Your task to perform on an android device: Show me productivity apps on the Play Store Image 0: 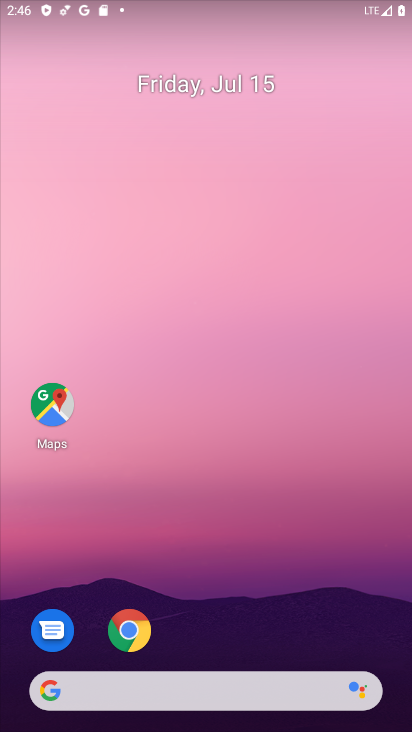
Step 0: drag from (187, 649) to (180, 266)
Your task to perform on an android device: Show me productivity apps on the Play Store Image 1: 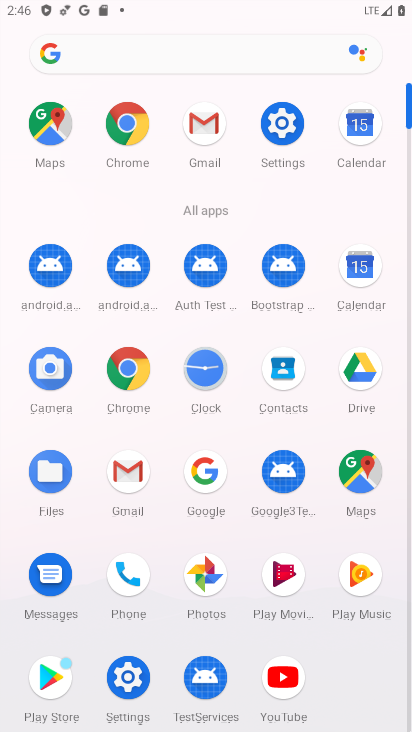
Step 1: click (37, 682)
Your task to perform on an android device: Show me productivity apps on the Play Store Image 2: 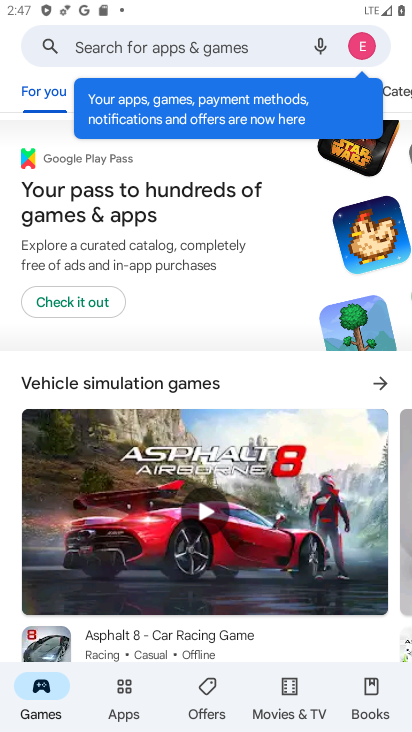
Step 2: click (134, 684)
Your task to perform on an android device: Show me productivity apps on the Play Store Image 3: 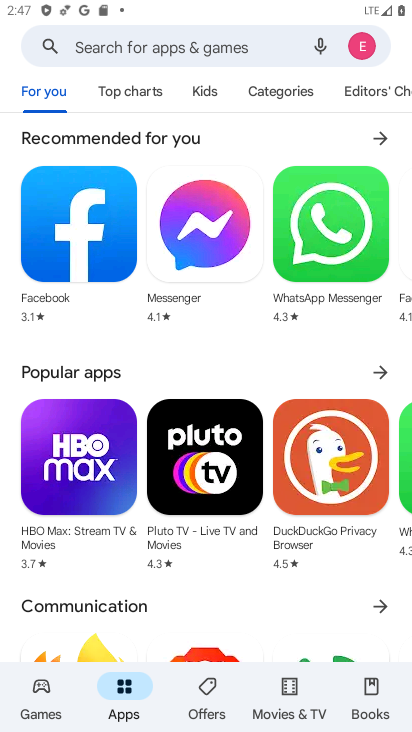
Step 3: click (269, 89)
Your task to perform on an android device: Show me productivity apps on the Play Store Image 4: 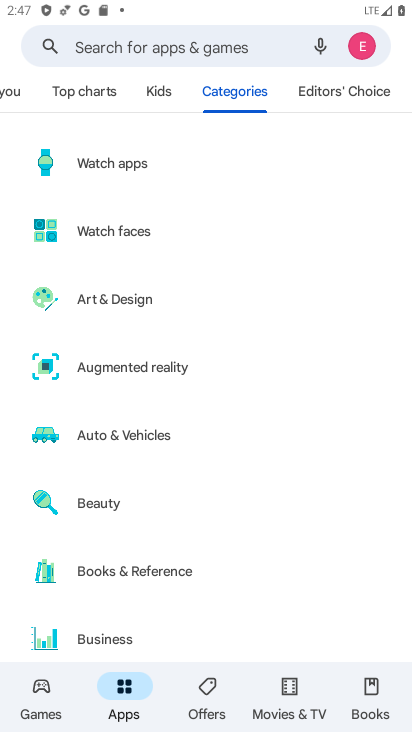
Step 4: drag from (167, 596) to (96, 28)
Your task to perform on an android device: Show me productivity apps on the Play Store Image 5: 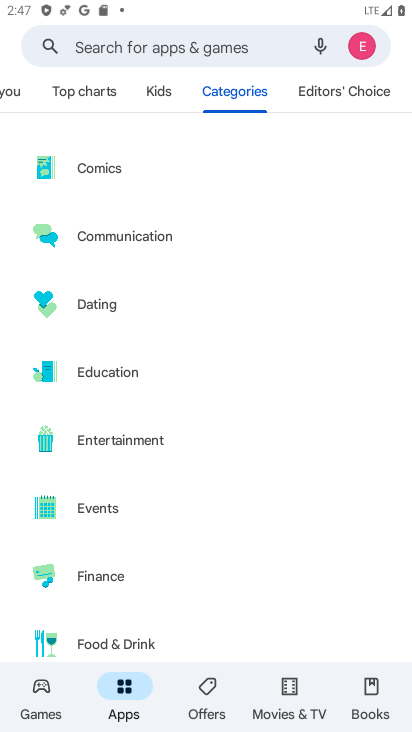
Step 5: drag from (136, 585) to (146, 83)
Your task to perform on an android device: Show me productivity apps on the Play Store Image 6: 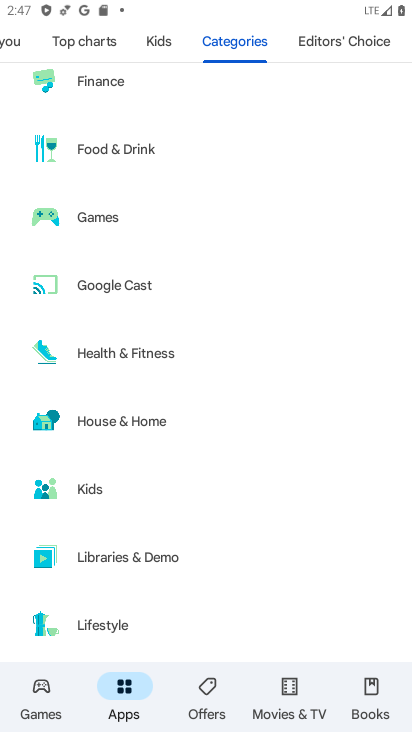
Step 6: drag from (159, 559) to (145, 279)
Your task to perform on an android device: Show me productivity apps on the Play Store Image 7: 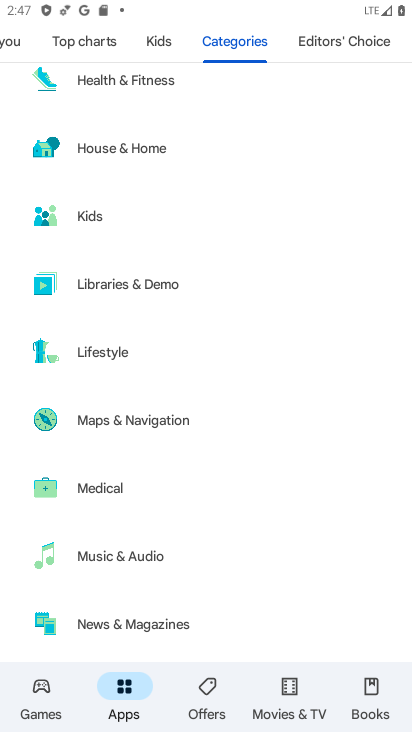
Step 7: drag from (124, 594) to (121, 26)
Your task to perform on an android device: Show me productivity apps on the Play Store Image 8: 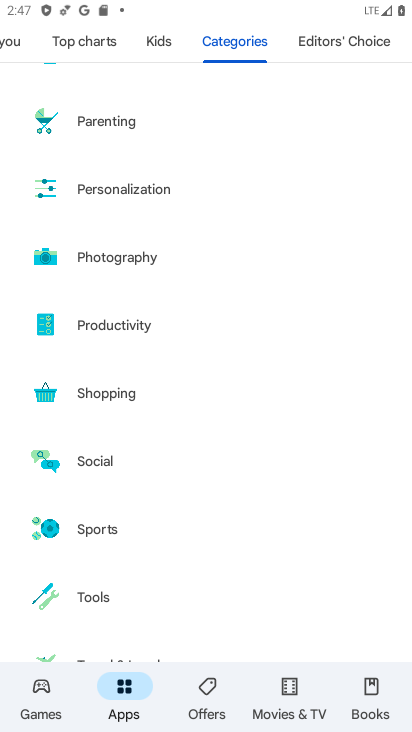
Step 8: drag from (184, 467) to (102, 3)
Your task to perform on an android device: Show me productivity apps on the Play Store Image 9: 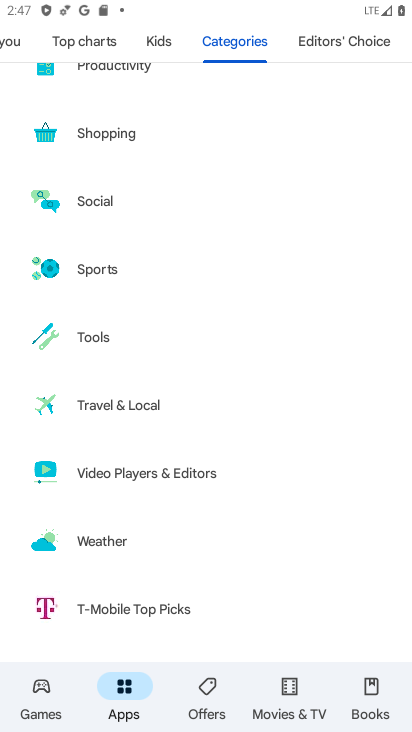
Step 9: drag from (150, 225) to (129, 514)
Your task to perform on an android device: Show me productivity apps on the Play Store Image 10: 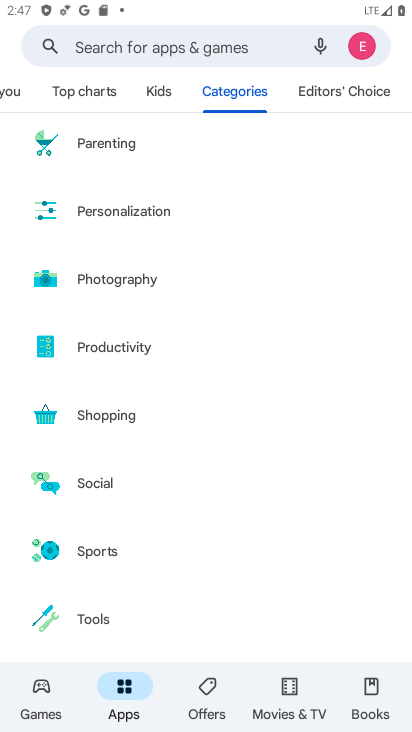
Step 10: click (112, 348)
Your task to perform on an android device: Show me productivity apps on the Play Store Image 11: 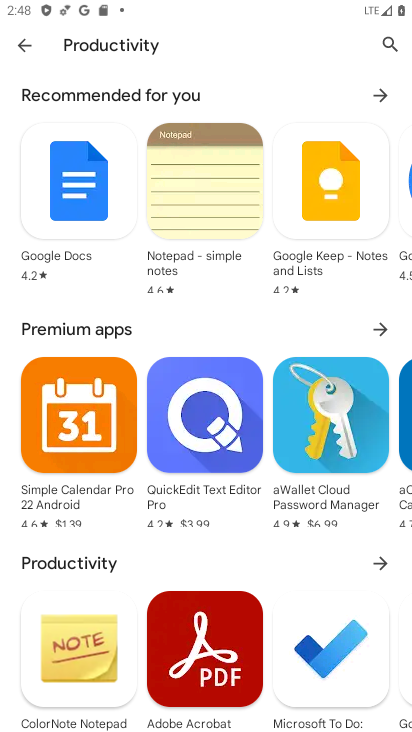
Step 11: task complete